Your task to perform on an android device: turn on improve location accuracy Image 0: 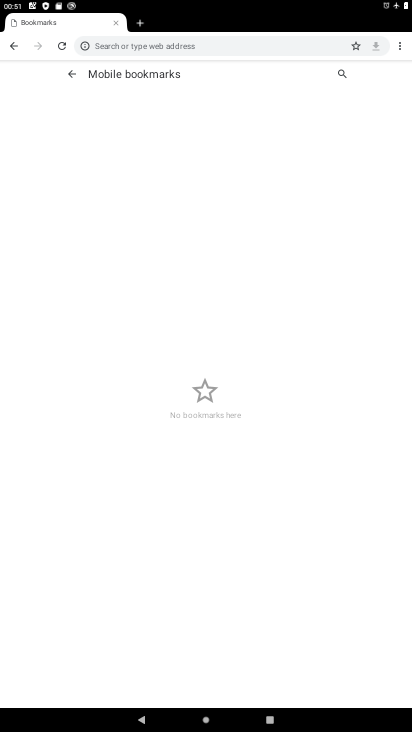
Step 0: press home button
Your task to perform on an android device: turn on improve location accuracy Image 1: 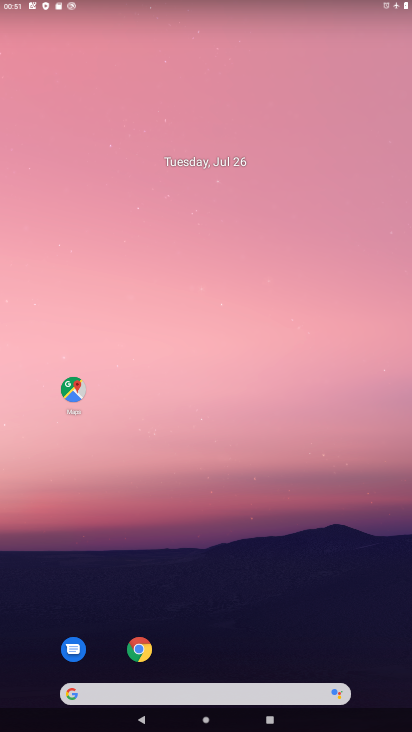
Step 1: drag from (184, 663) to (184, 73)
Your task to perform on an android device: turn on improve location accuracy Image 2: 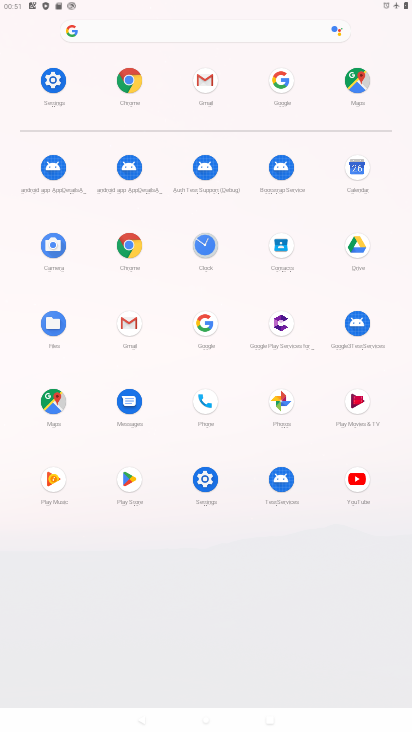
Step 2: click (201, 479)
Your task to perform on an android device: turn on improve location accuracy Image 3: 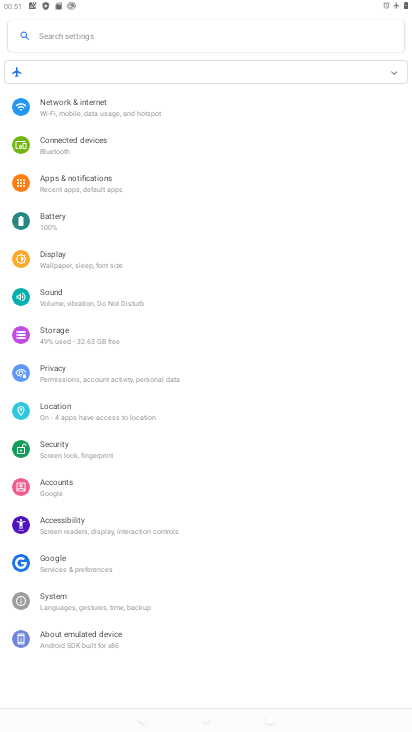
Step 3: click (61, 411)
Your task to perform on an android device: turn on improve location accuracy Image 4: 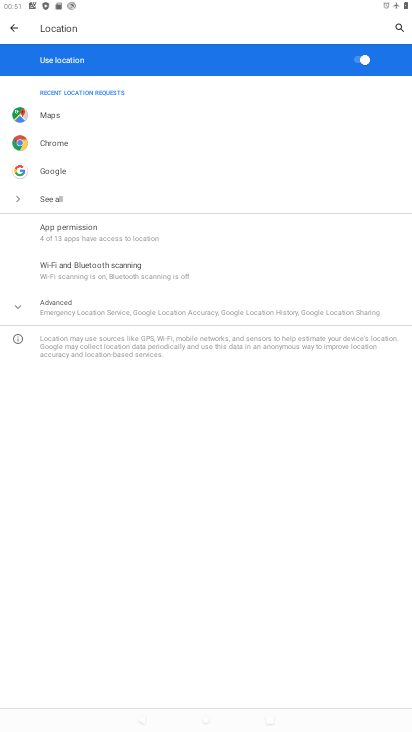
Step 4: click (55, 304)
Your task to perform on an android device: turn on improve location accuracy Image 5: 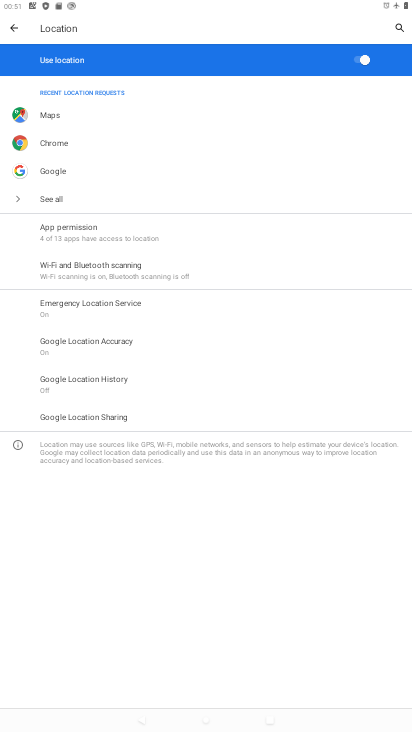
Step 5: click (100, 341)
Your task to perform on an android device: turn on improve location accuracy Image 6: 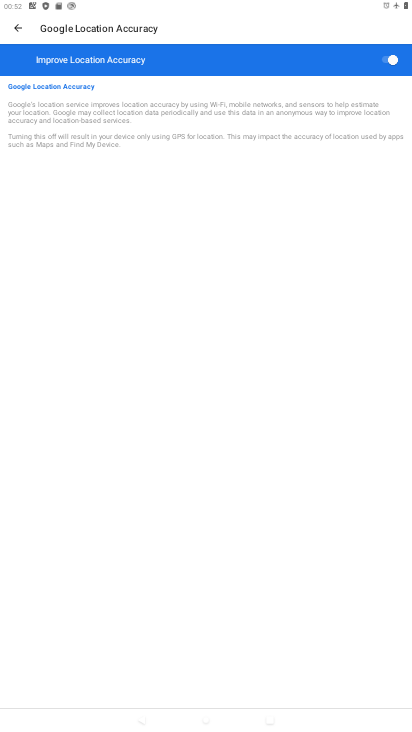
Step 6: task complete